Your task to perform on an android device: Open Youtube and go to the subscriptions tab Image 0: 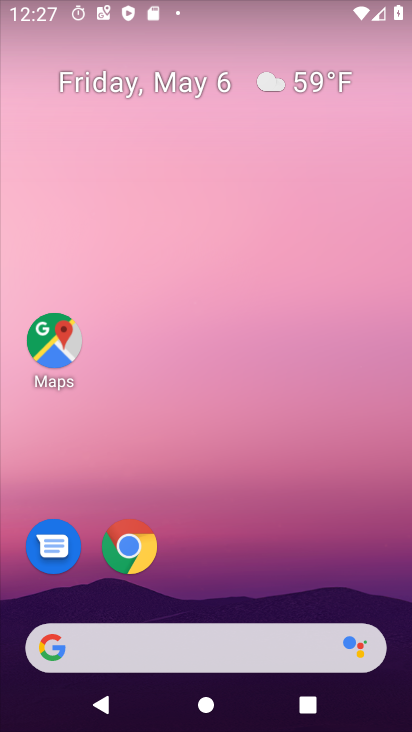
Step 0: drag from (282, 534) to (282, 203)
Your task to perform on an android device: Open Youtube and go to the subscriptions tab Image 1: 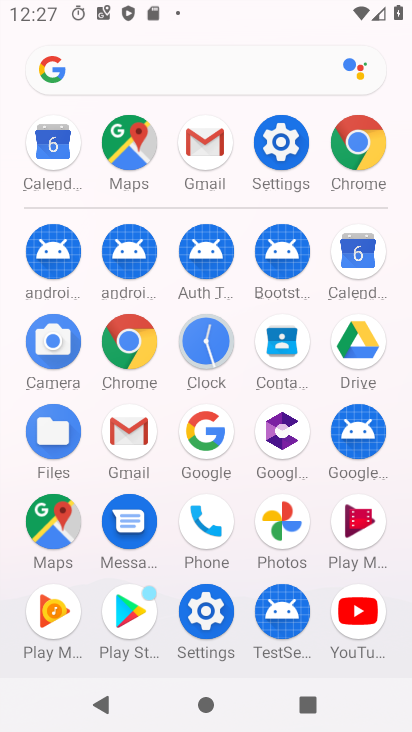
Step 1: click (354, 616)
Your task to perform on an android device: Open Youtube and go to the subscriptions tab Image 2: 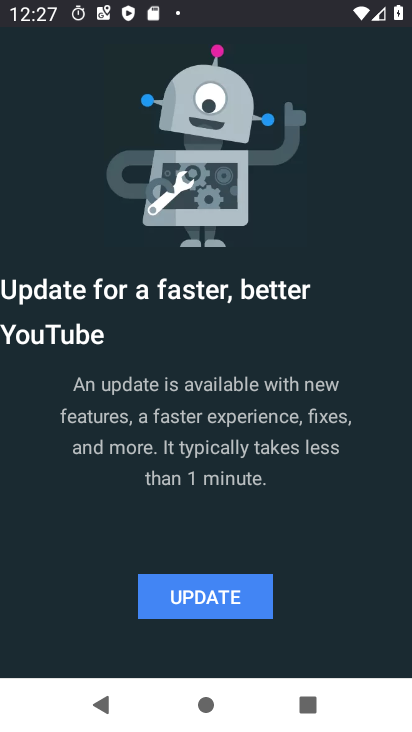
Step 2: click (253, 605)
Your task to perform on an android device: Open Youtube and go to the subscriptions tab Image 3: 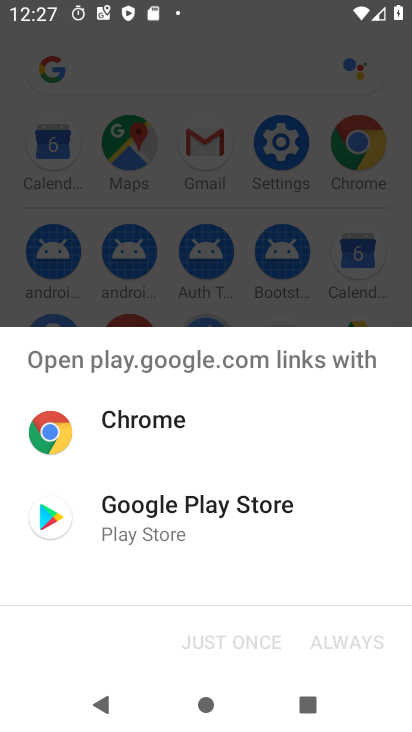
Step 3: click (185, 514)
Your task to perform on an android device: Open Youtube and go to the subscriptions tab Image 4: 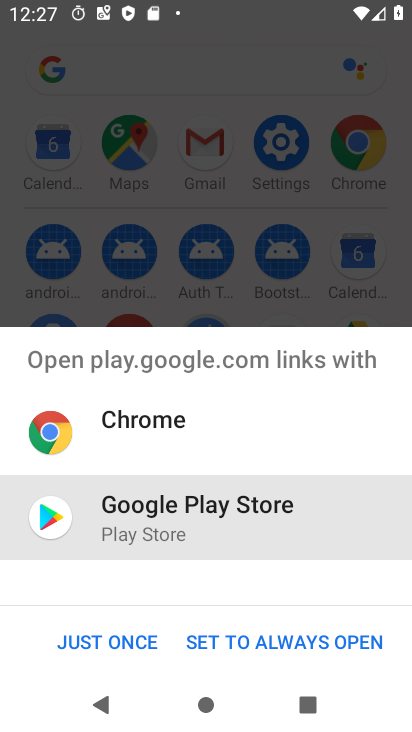
Step 4: click (111, 645)
Your task to perform on an android device: Open Youtube and go to the subscriptions tab Image 5: 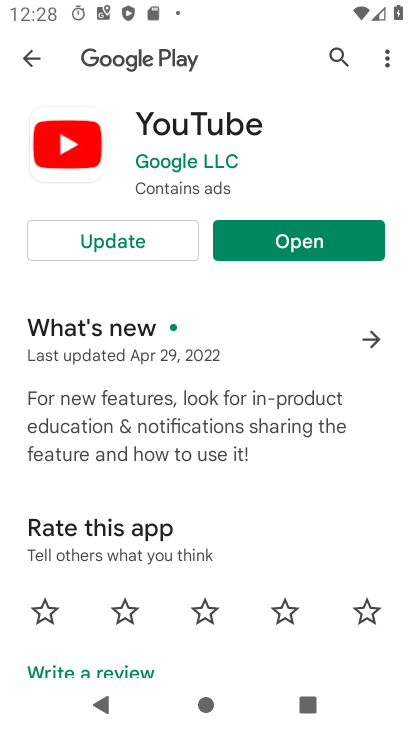
Step 5: click (147, 243)
Your task to perform on an android device: Open Youtube and go to the subscriptions tab Image 6: 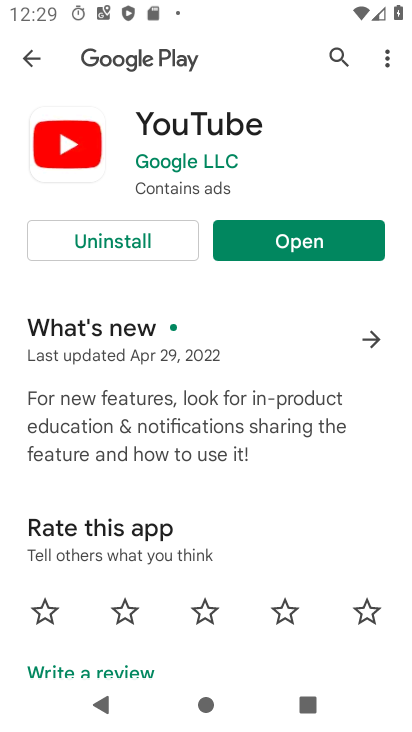
Step 6: click (305, 236)
Your task to perform on an android device: Open Youtube and go to the subscriptions tab Image 7: 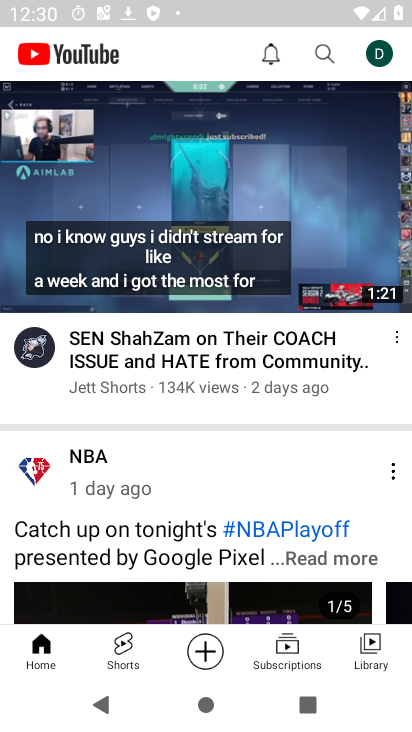
Step 7: click (288, 653)
Your task to perform on an android device: Open Youtube and go to the subscriptions tab Image 8: 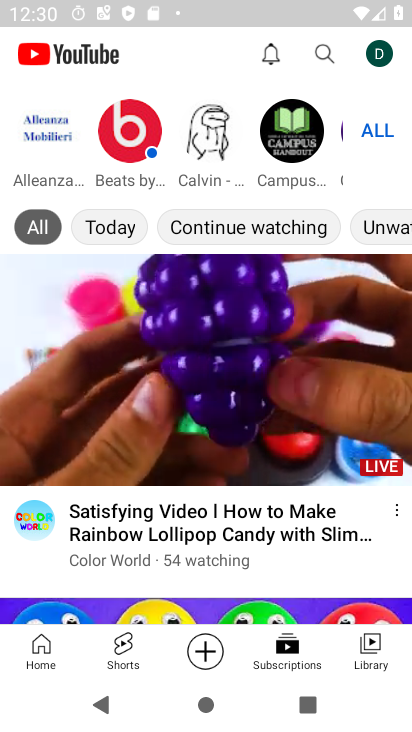
Step 8: task complete